Your task to perform on an android device: Set the phone to "Do not disturb". Image 0: 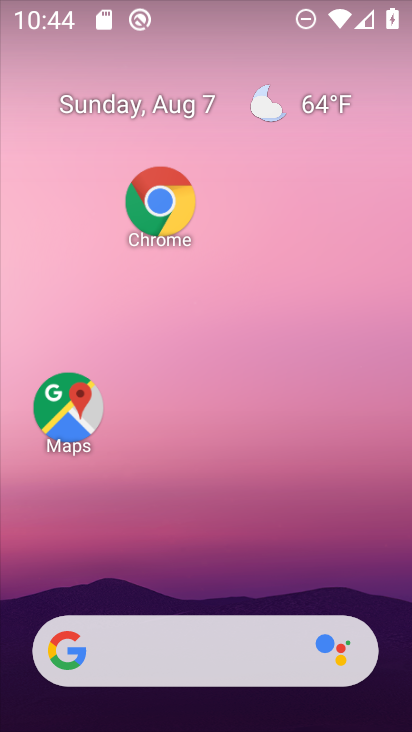
Step 0: drag from (205, 8) to (195, 721)
Your task to perform on an android device: Set the phone to "Do not disturb". Image 1: 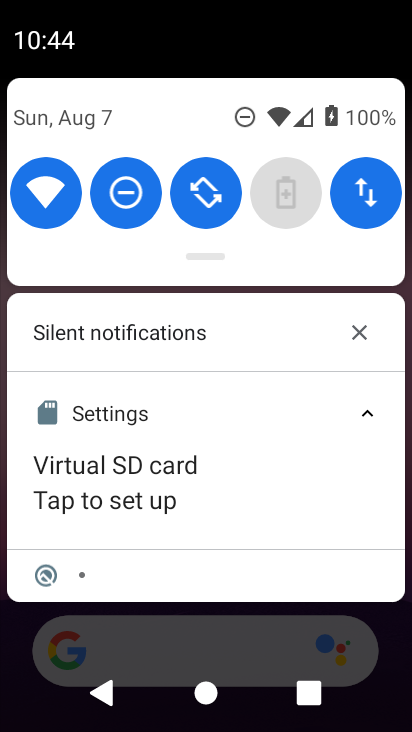
Step 1: task complete